Your task to perform on an android device: Open settings on Google Maps Image 0: 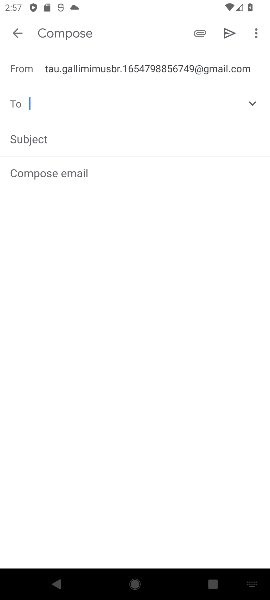
Step 0: press home button
Your task to perform on an android device: Open settings on Google Maps Image 1: 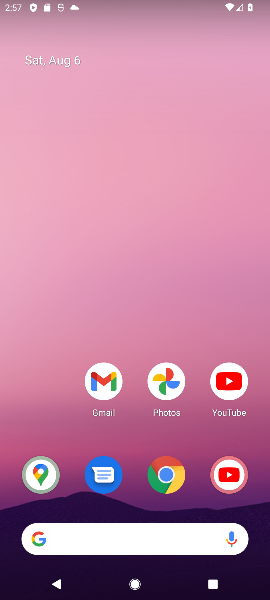
Step 1: click (191, 109)
Your task to perform on an android device: Open settings on Google Maps Image 2: 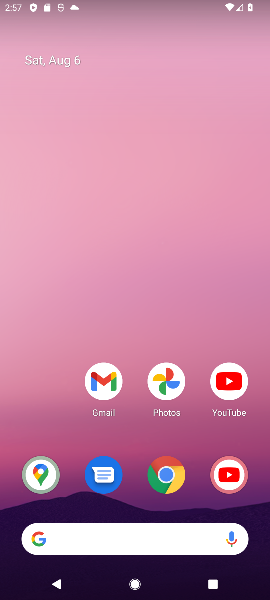
Step 2: click (54, 481)
Your task to perform on an android device: Open settings on Google Maps Image 3: 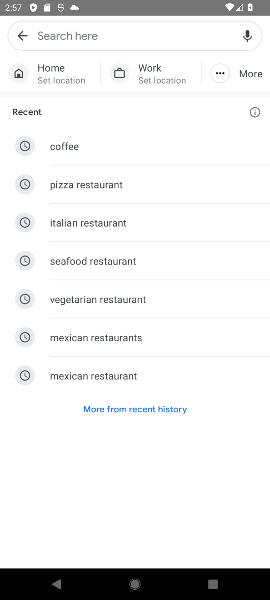
Step 3: click (45, 479)
Your task to perform on an android device: Open settings on Google Maps Image 4: 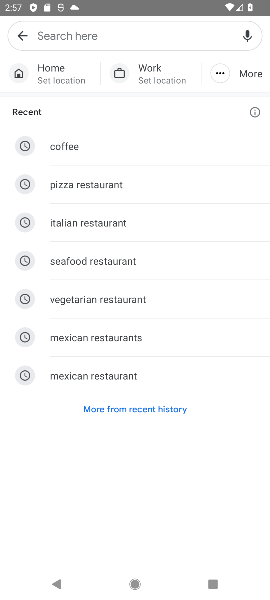
Step 4: click (19, 36)
Your task to perform on an android device: Open settings on Google Maps Image 5: 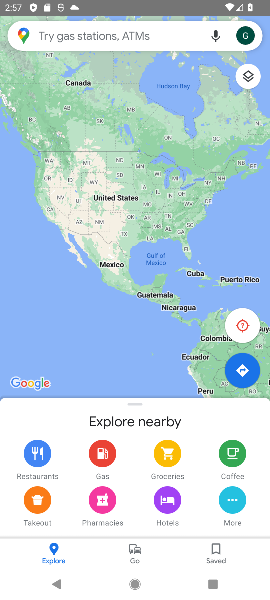
Step 5: click (75, 27)
Your task to perform on an android device: Open settings on Google Maps Image 6: 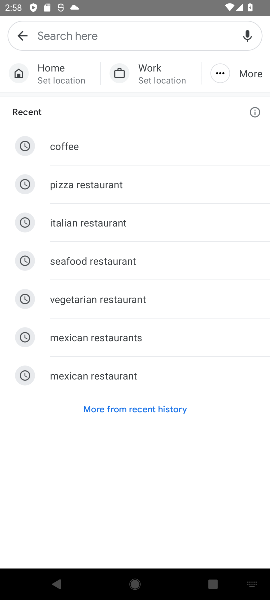
Step 6: click (55, 73)
Your task to perform on an android device: Open settings on Google Maps Image 7: 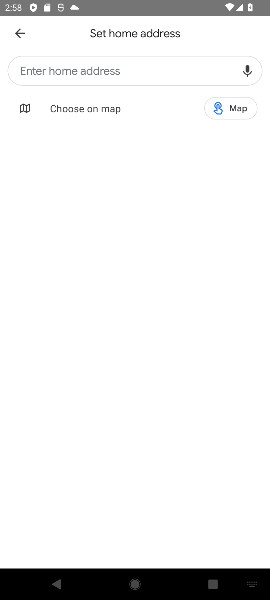
Step 7: click (17, 28)
Your task to perform on an android device: Open settings on Google Maps Image 8: 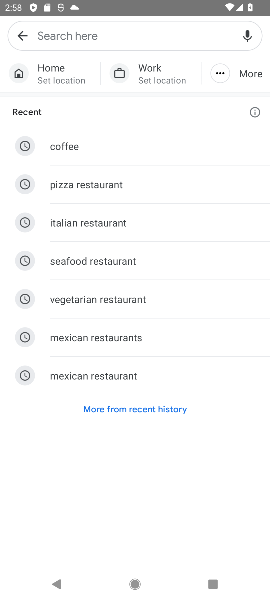
Step 8: click (17, 28)
Your task to perform on an android device: Open settings on Google Maps Image 9: 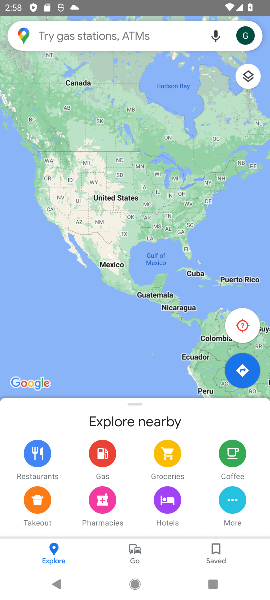
Step 9: task complete